Your task to perform on an android device: toggle airplane mode Image 0: 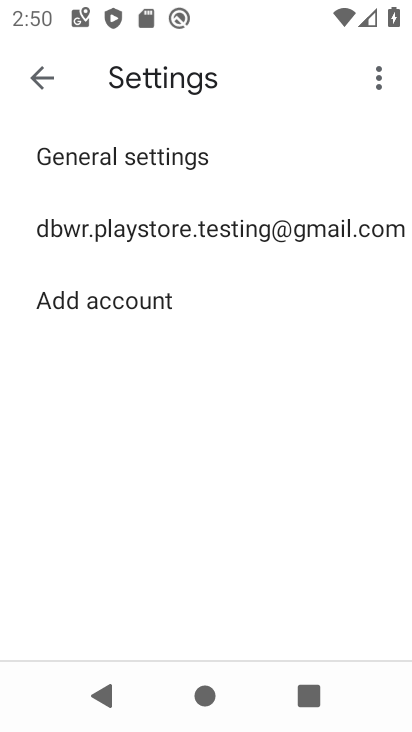
Step 0: press back button
Your task to perform on an android device: toggle airplane mode Image 1: 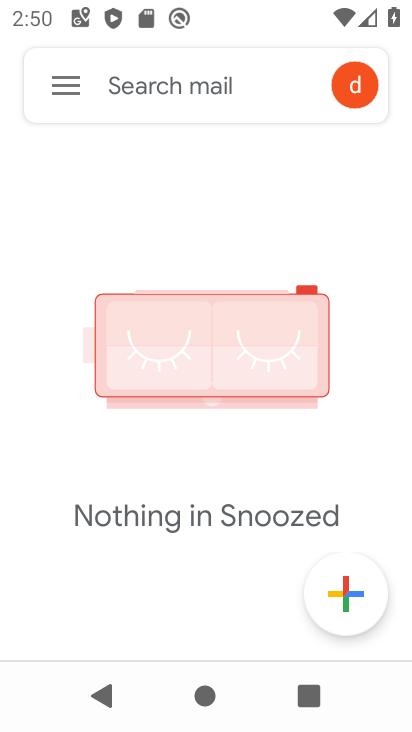
Step 1: press home button
Your task to perform on an android device: toggle airplane mode Image 2: 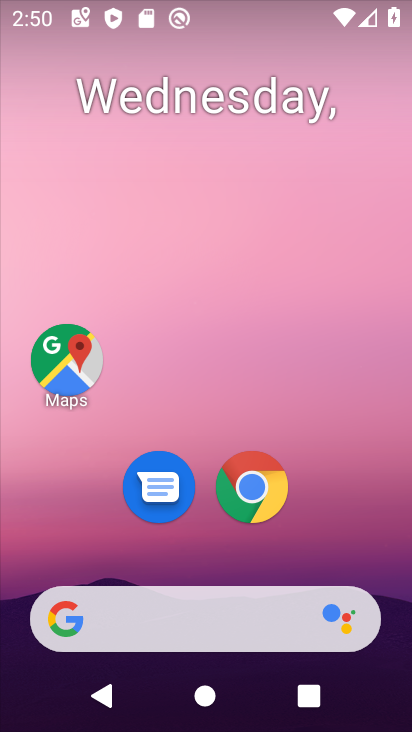
Step 2: drag from (348, 528) to (379, 74)
Your task to perform on an android device: toggle airplane mode Image 3: 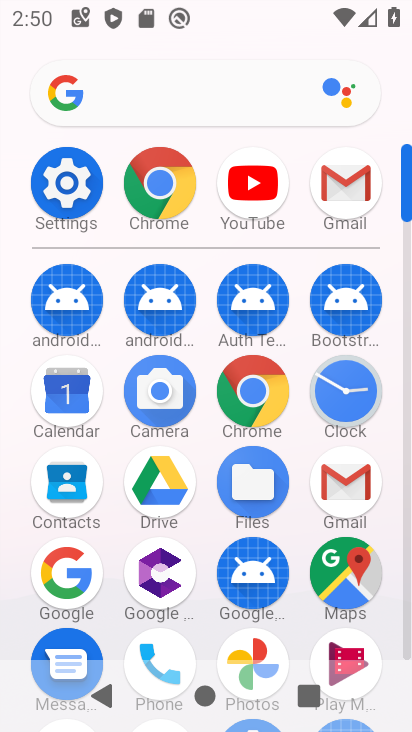
Step 3: click (69, 186)
Your task to perform on an android device: toggle airplane mode Image 4: 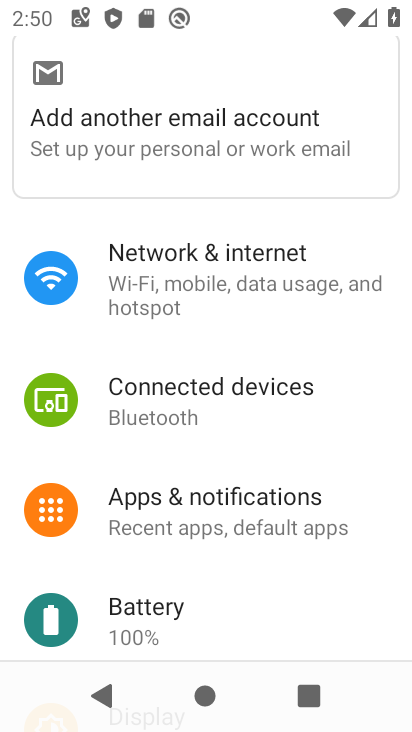
Step 4: drag from (356, 566) to (366, 385)
Your task to perform on an android device: toggle airplane mode Image 5: 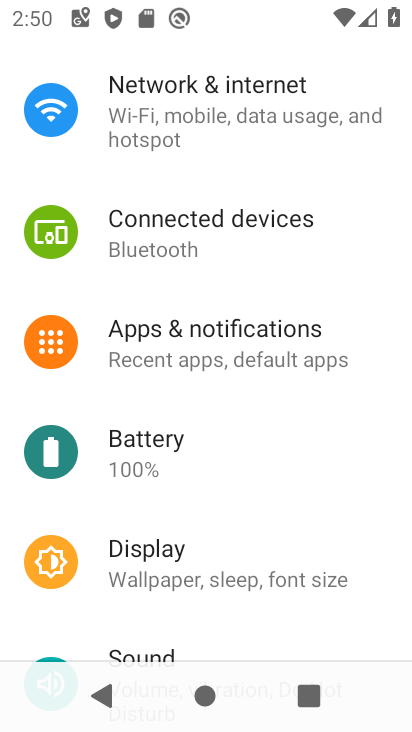
Step 5: drag from (364, 274) to (346, 437)
Your task to perform on an android device: toggle airplane mode Image 6: 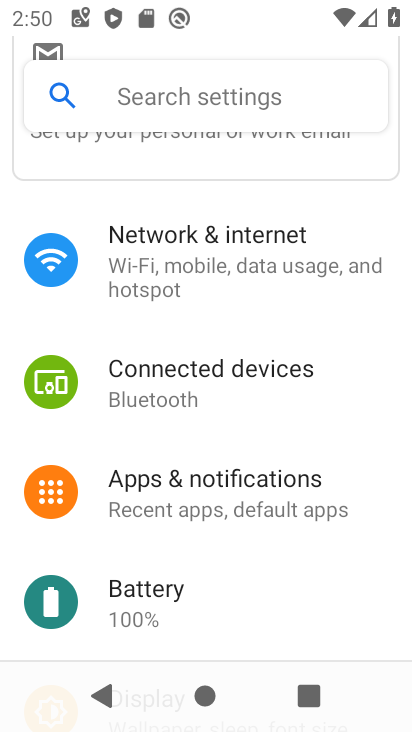
Step 6: drag from (342, 312) to (347, 448)
Your task to perform on an android device: toggle airplane mode Image 7: 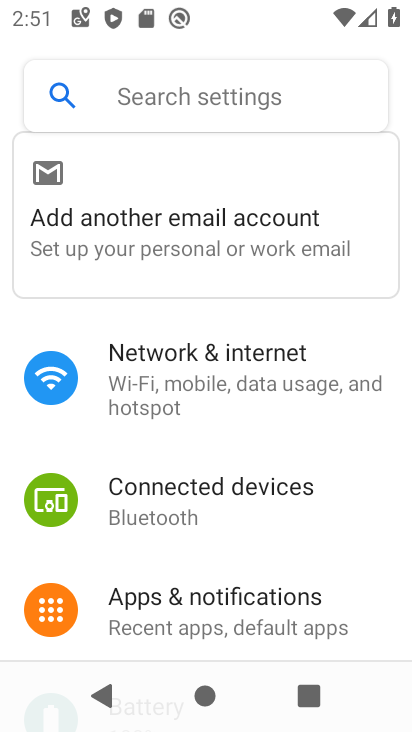
Step 7: click (234, 384)
Your task to perform on an android device: toggle airplane mode Image 8: 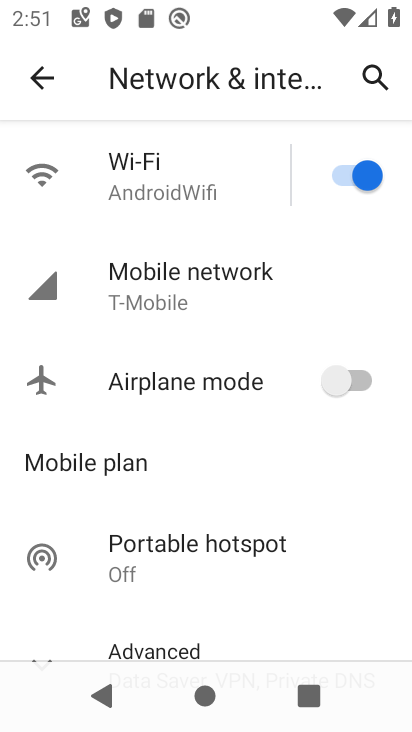
Step 8: click (342, 381)
Your task to perform on an android device: toggle airplane mode Image 9: 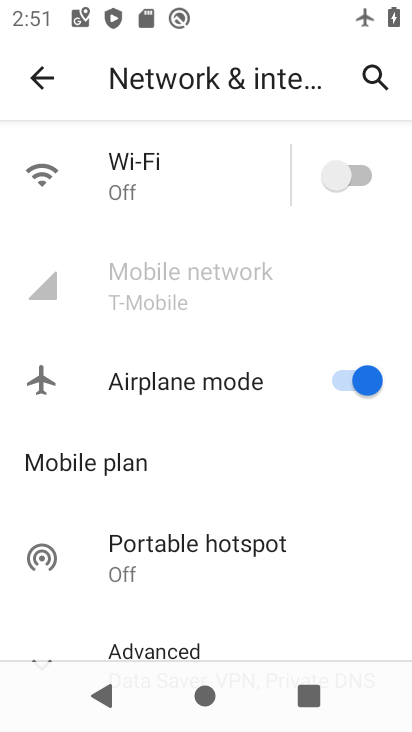
Step 9: task complete